Your task to perform on an android device: snooze an email in the gmail app Image 0: 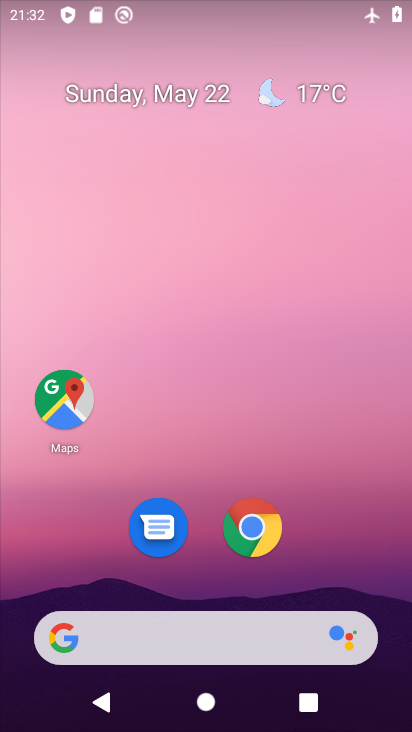
Step 0: drag from (327, 546) to (246, 132)
Your task to perform on an android device: snooze an email in the gmail app Image 1: 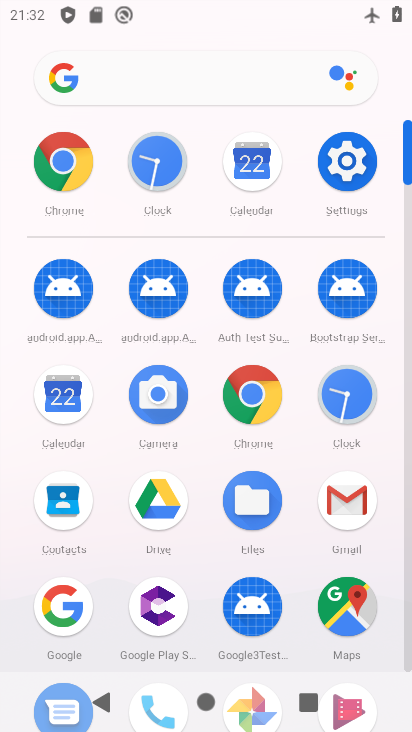
Step 1: click (341, 500)
Your task to perform on an android device: snooze an email in the gmail app Image 2: 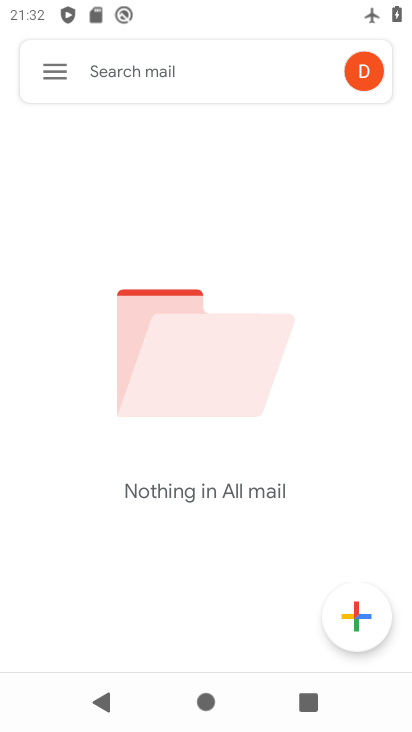
Step 2: click (54, 72)
Your task to perform on an android device: snooze an email in the gmail app Image 3: 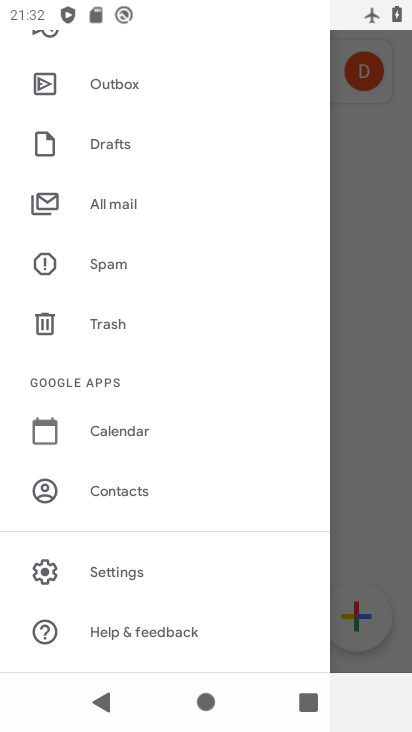
Step 3: drag from (181, 146) to (251, 729)
Your task to perform on an android device: snooze an email in the gmail app Image 4: 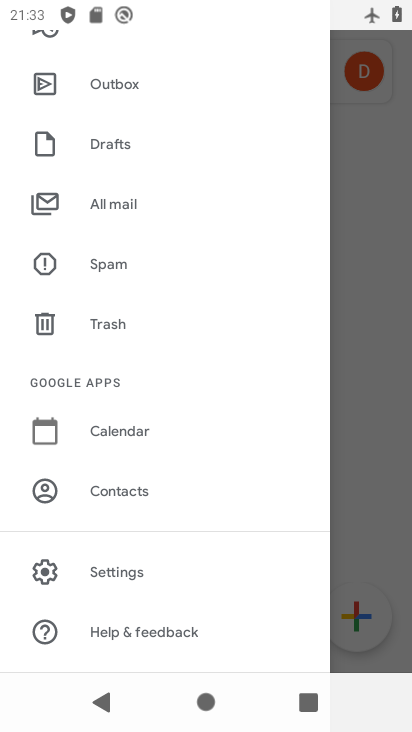
Step 4: drag from (167, 142) to (251, 582)
Your task to perform on an android device: snooze an email in the gmail app Image 5: 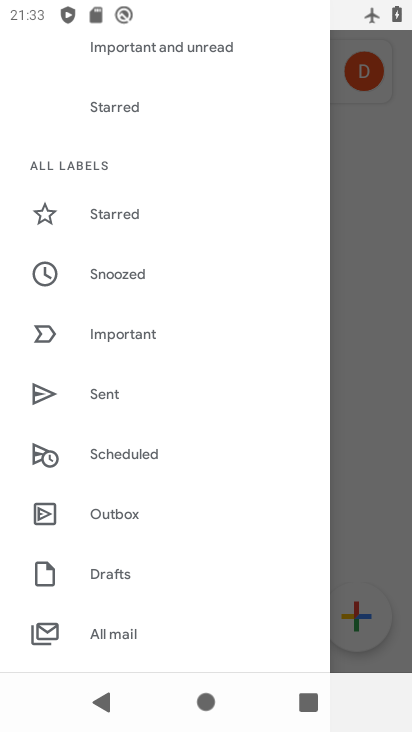
Step 5: click (128, 270)
Your task to perform on an android device: snooze an email in the gmail app Image 6: 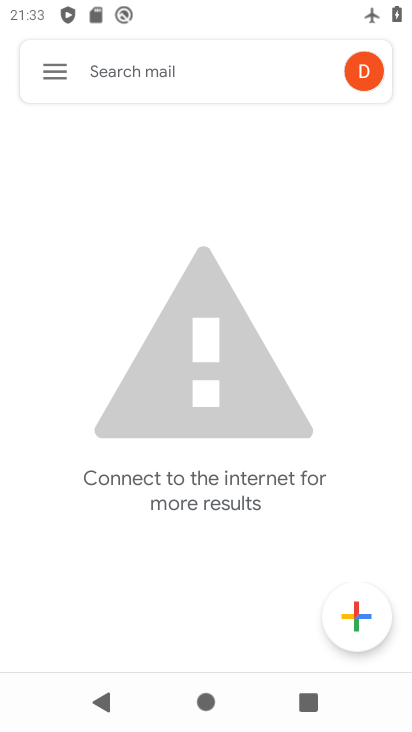
Step 6: task complete